Your task to perform on an android device: change timer sound Image 0: 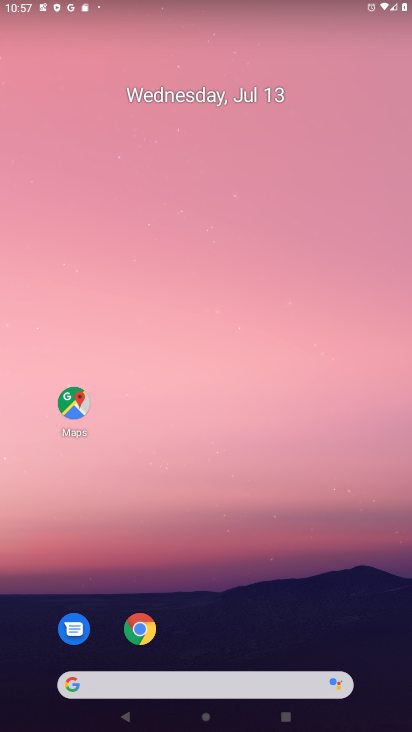
Step 0: drag from (288, 629) to (277, 155)
Your task to perform on an android device: change timer sound Image 1: 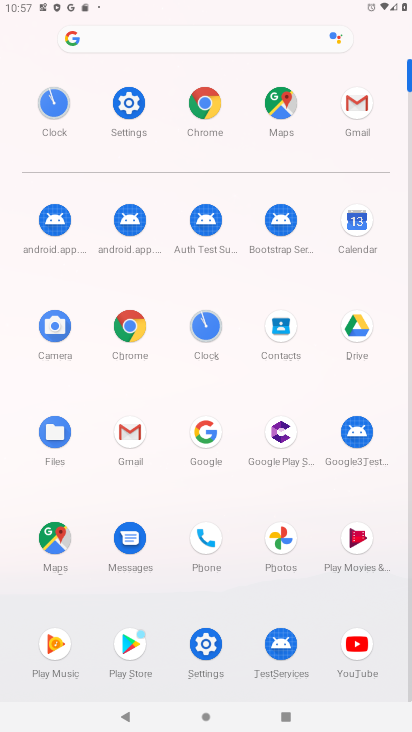
Step 1: click (142, 112)
Your task to perform on an android device: change timer sound Image 2: 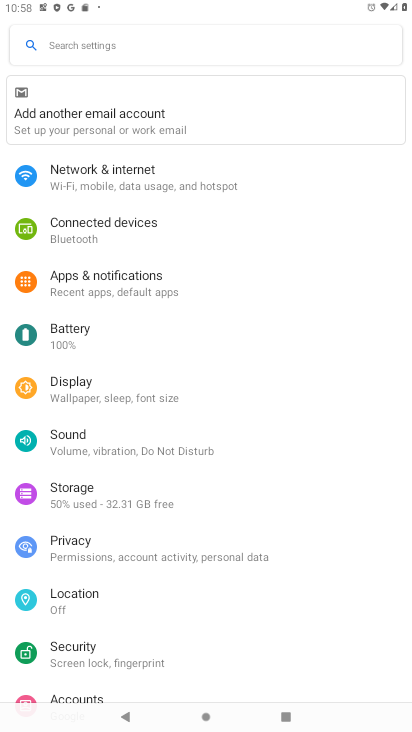
Step 2: press home button
Your task to perform on an android device: change timer sound Image 3: 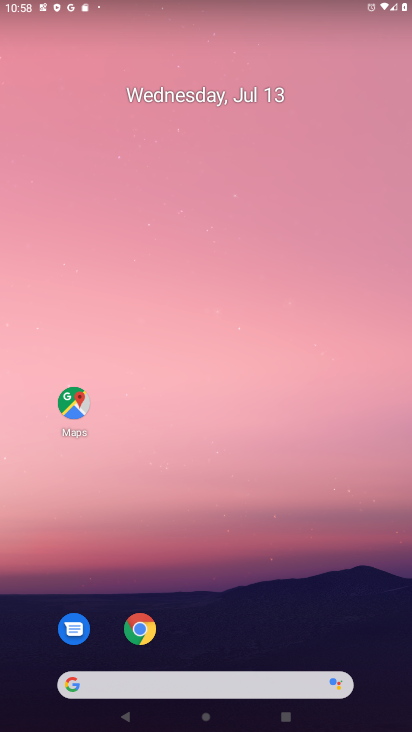
Step 3: drag from (299, 629) to (249, 222)
Your task to perform on an android device: change timer sound Image 4: 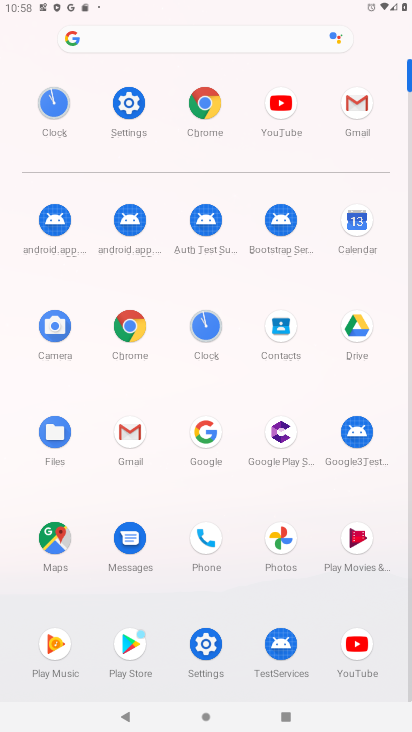
Step 4: click (198, 320)
Your task to perform on an android device: change timer sound Image 5: 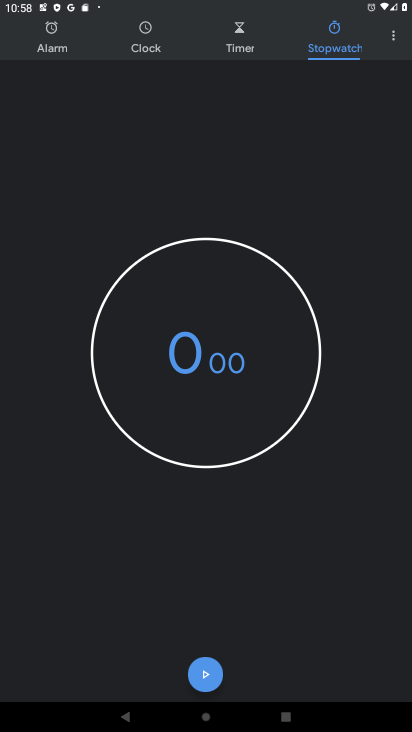
Step 5: click (391, 41)
Your task to perform on an android device: change timer sound Image 6: 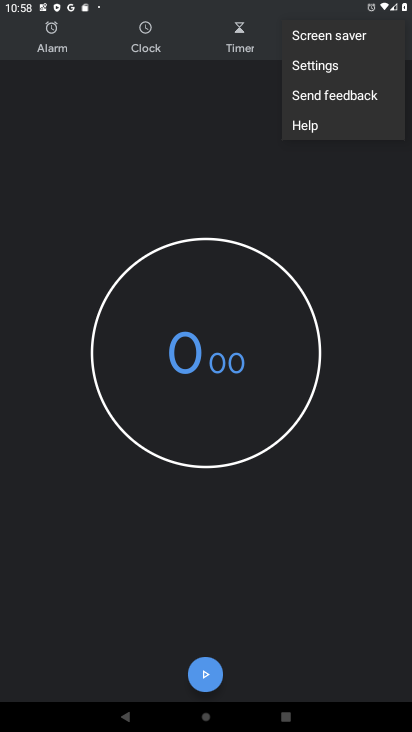
Step 6: click (355, 68)
Your task to perform on an android device: change timer sound Image 7: 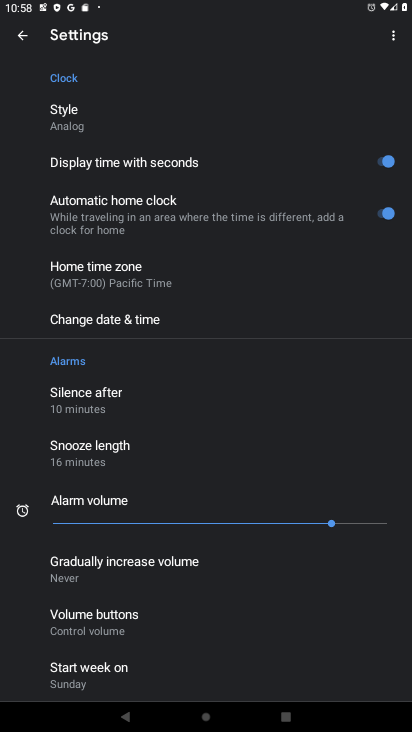
Step 7: drag from (132, 630) to (126, 376)
Your task to perform on an android device: change timer sound Image 8: 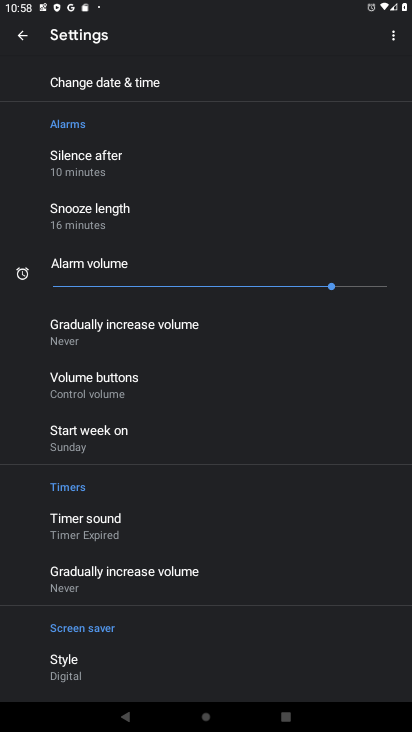
Step 8: click (129, 531)
Your task to perform on an android device: change timer sound Image 9: 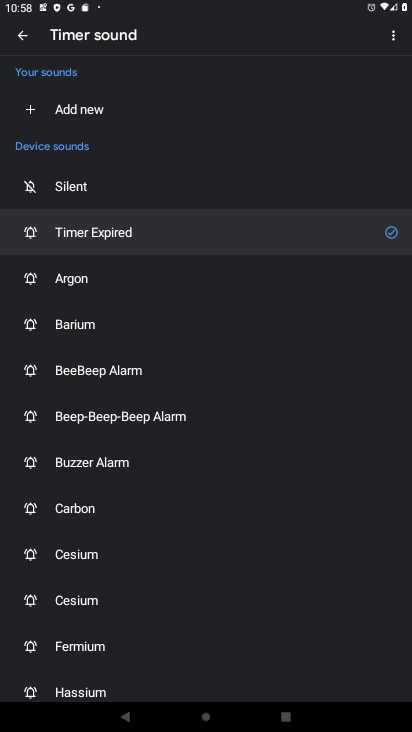
Step 9: click (129, 380)
Your task to perform on an android device: change timer sound Image 10: 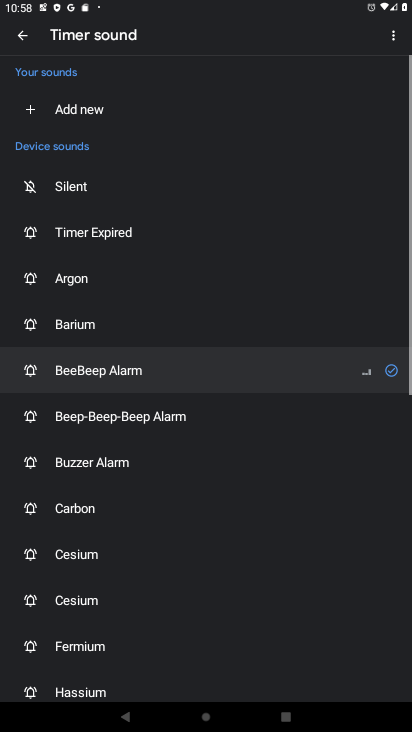
Step 10: task complete